Your task to perform on an android device: Toggle the flashlight Image 0: 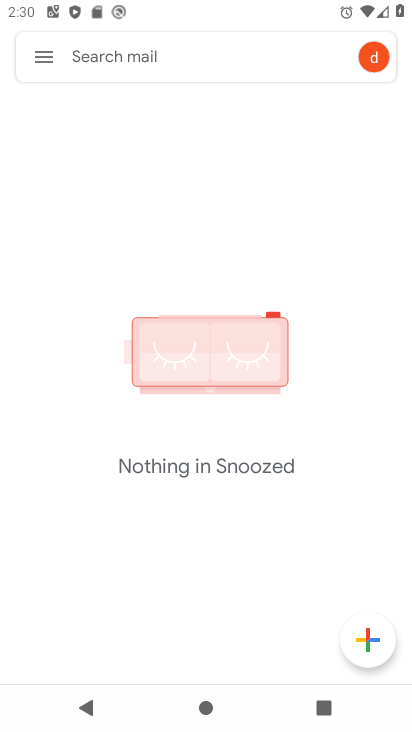
Step 0: press home button
Your task to perform on an android device: Toggle the flashlight Image 1: 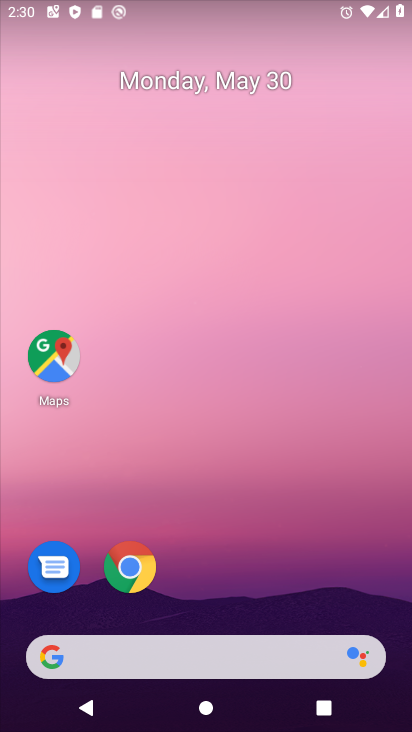
Step 1: drag from (225, 596) to (314, 56)
Your task to perform on an android device: Toggle the flashlight Image 2: 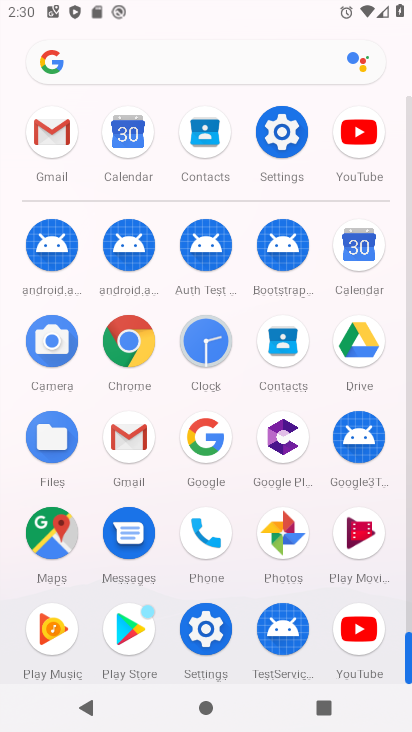
Step 2: click (285, 161)
Your task to perform on an android device: Toggle the flashlight Image 3: 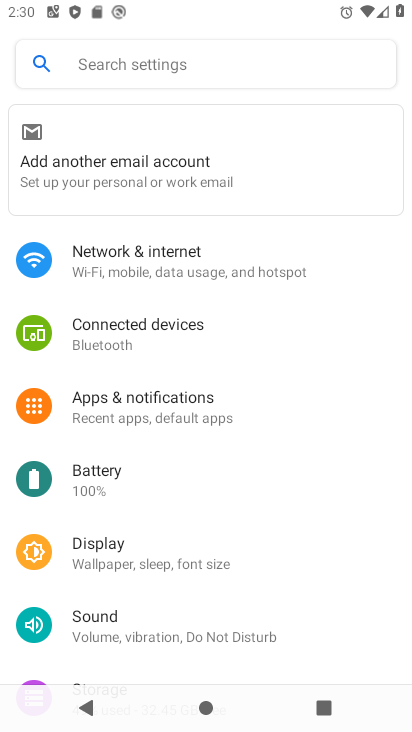
Step 3: click (216, 65)
Your task to perform on an android device: Toggle the flashlight Image 4: 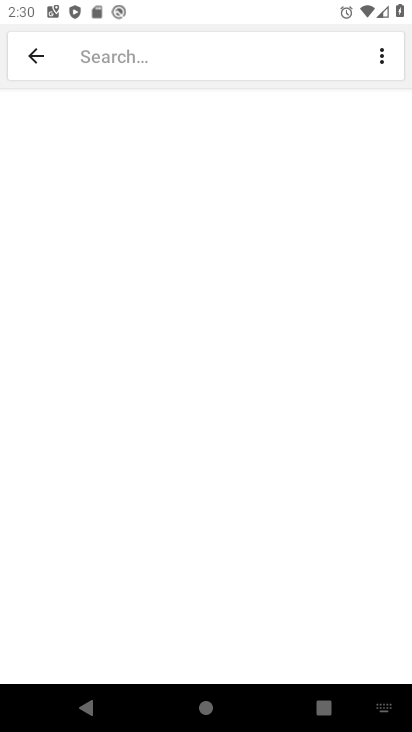
Step 4: type "flashlight"
Your task to perform on an android device: Toggle the flashlight Image 5: 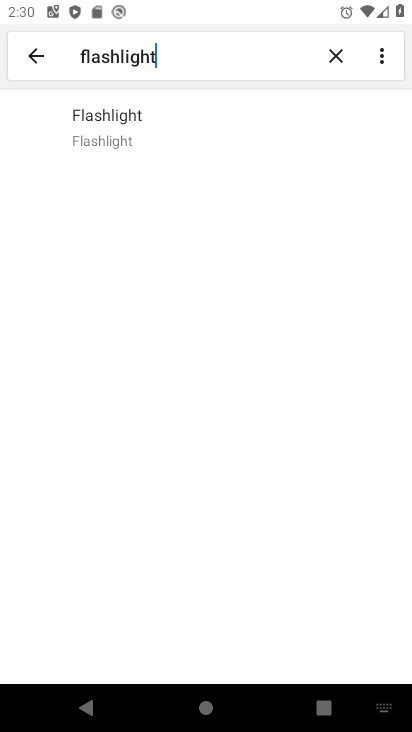
Step 5: click (122, 139)
Your task to perform on an android device: Toggle the flashlight Image 6: 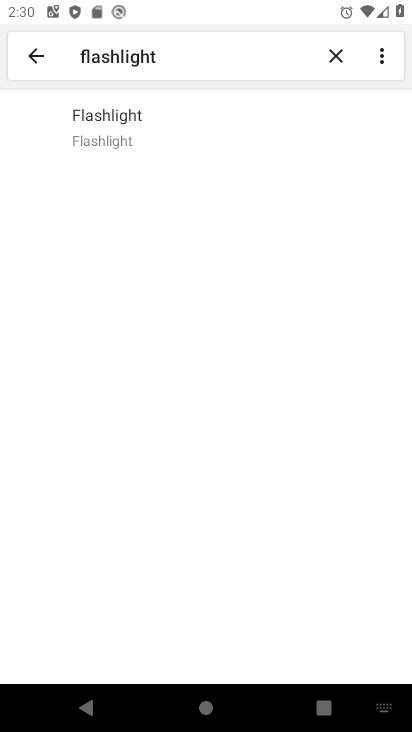
Step 6: click (123, 138)
Your task to perform on an android device: Toggle the flashlight Image 7: 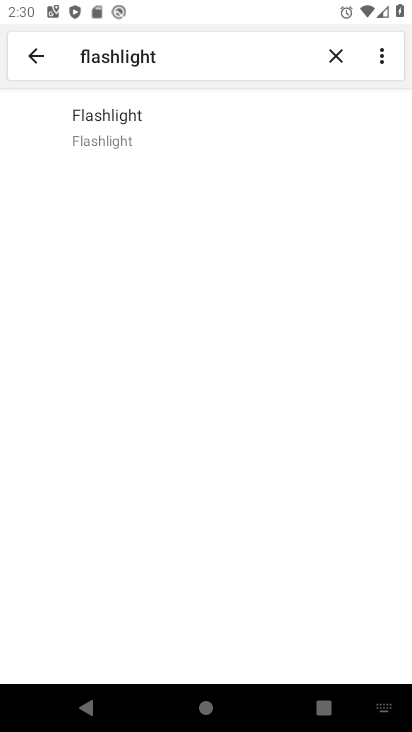
Step 7: task complete